Your task to perform on an android device: add a contact in the contacts app Image 0: 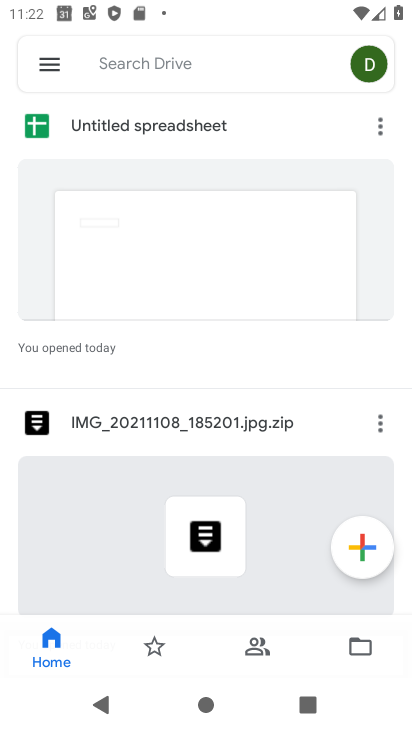
Step 0: press home button
Your task to perform on an android device: add a contact in the contacts app Image 1: 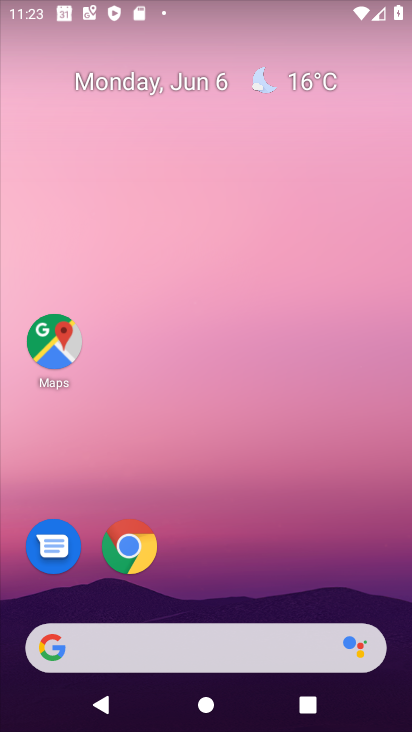
Step 1: drag from (221, 518) to (197, 39)
Your task to perform on an android device: add a contact in the contacts app Image 2: 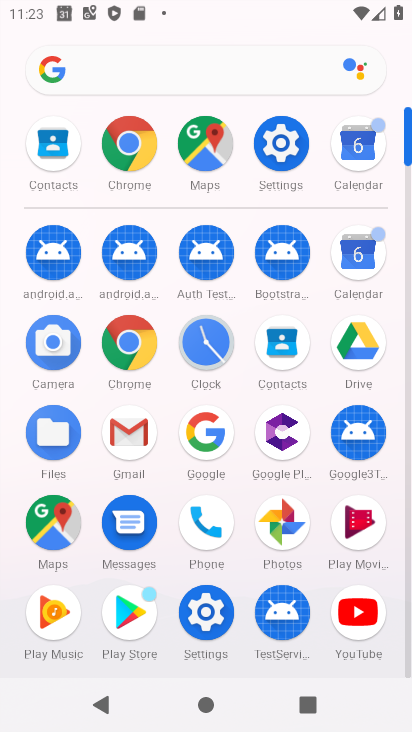
Step 2: click (49, 144)
Your task to perform on an android device: add a contact in the contacts app Image 3: 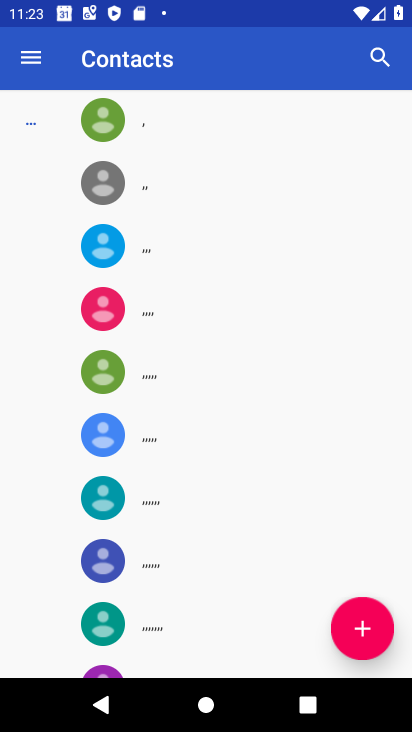
Step 3: click (371, 615)
Your task to perform on an android device: add a contact in the contacts app Image 4: 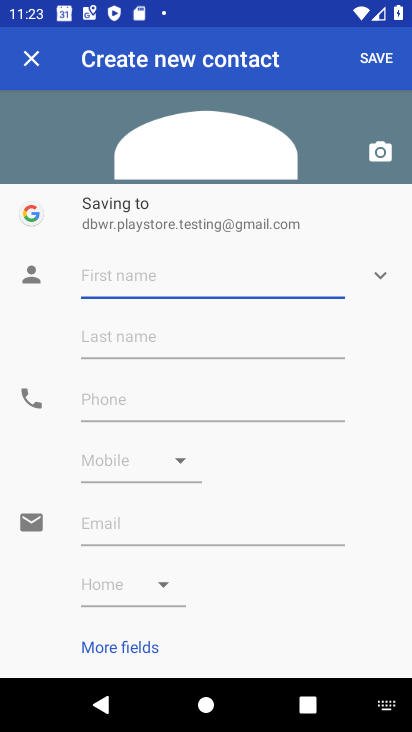
Step 4: type "vijay"
Your task to perform on an android device: add a contact in the contacts app Image 5: 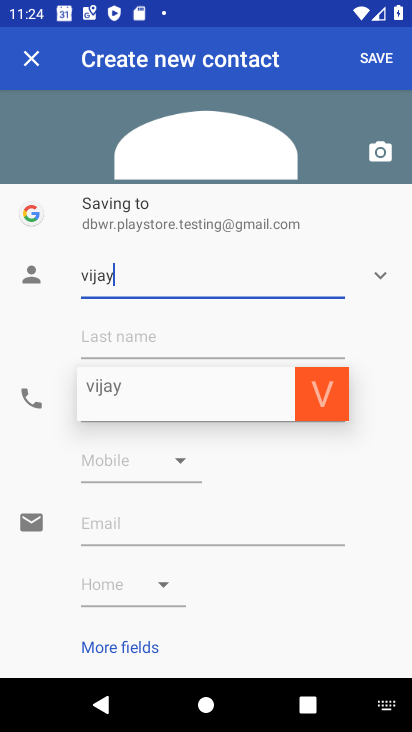
Step 5: type "pro"
Your task to perform on an android device: add a contact in the contacts app Image 6: 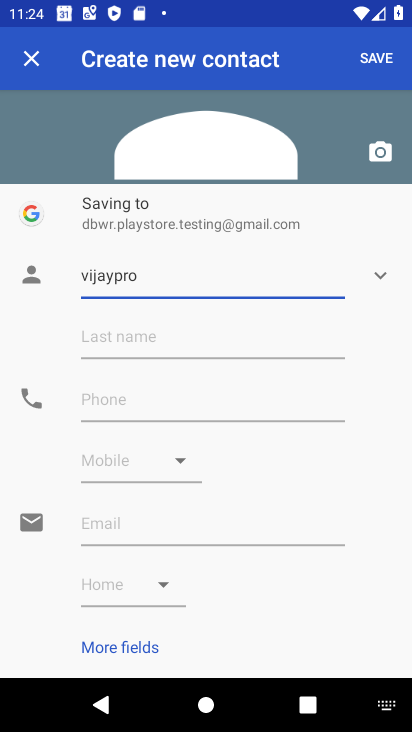
Step 6: click (385, 63)
Your task to perform on an android device: add a contact in the contacts app Image 7: 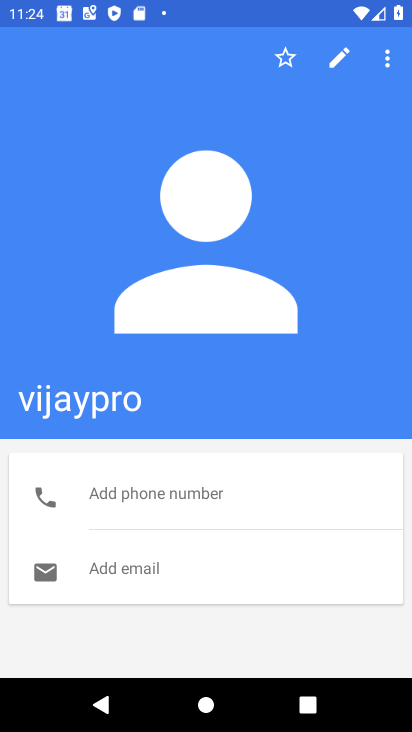
Step 7: task complete